Your task to perform on an android device: Open location settings Image 0: 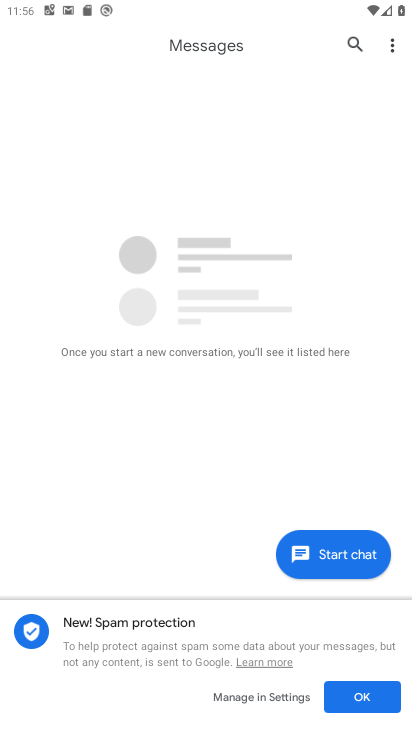
Step 0: press home button
Your task to perform on an android device: Open location settings Image 1: 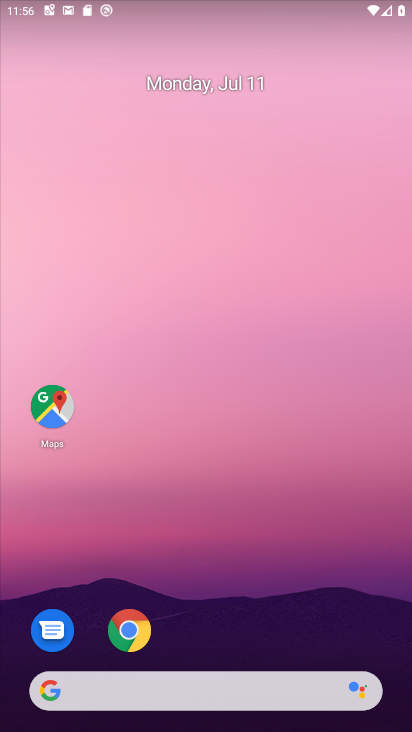
Step 1: drag from (237, 544) to (247, 120)
Your task to perform on an android device: Open location settings Image 2: 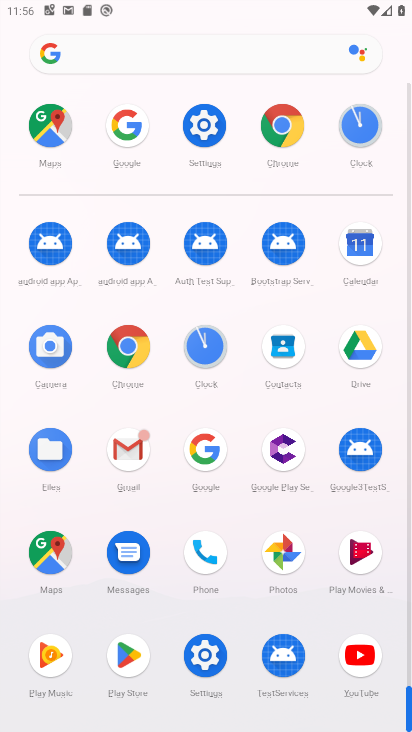
Step 2: click (201, 147)
Your task to perform on an android device: Open location settings Image 3: 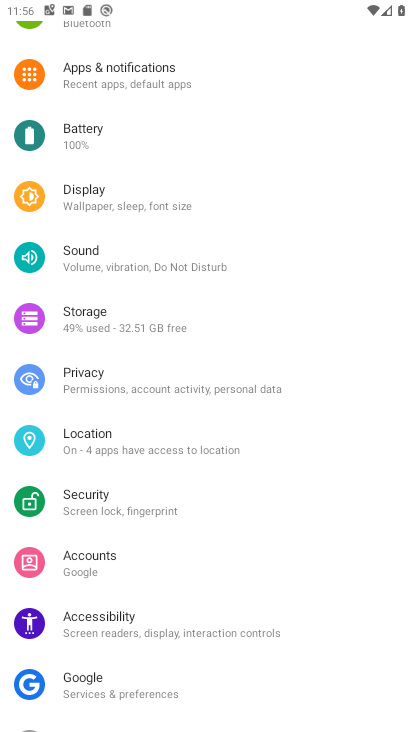
Step 3: drag from (138, 527) to (146, 268)
Your task to perform on an android device: Open location settings Image 4: 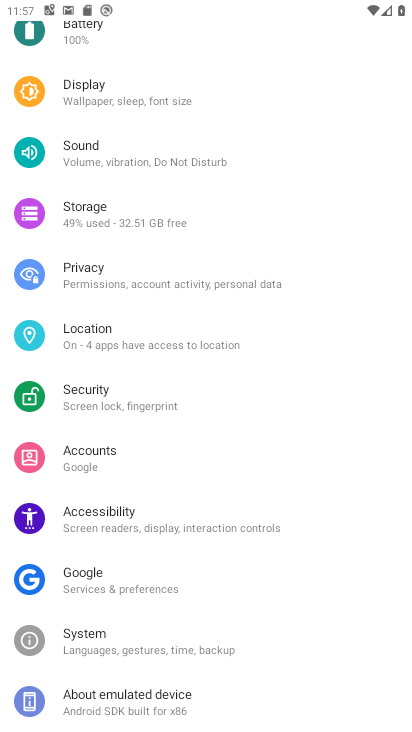
Step 4: click (122, 344)
Your task to perform on an android device: Open location settings Image 5: 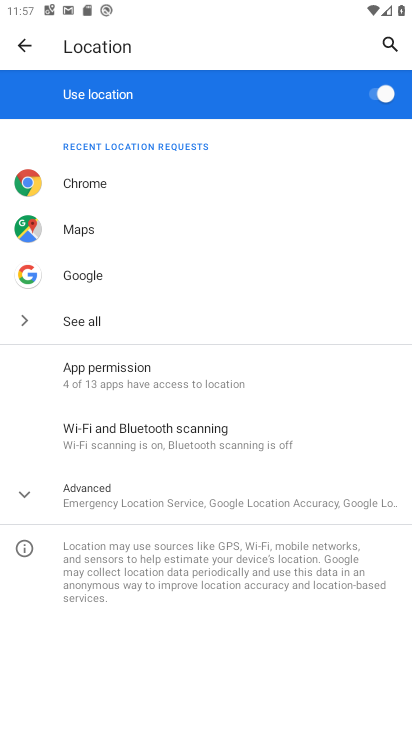
Step 5: task complete